Your task to perform on an android device: turn off data saver in the chrome app Image 0: 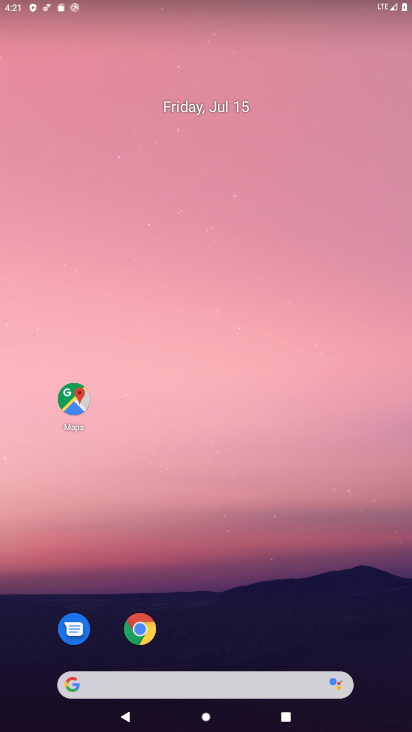
Step 0: click (139, 634)
Your task to perform on an android device: turn off data saver in the chrome app Image 1: 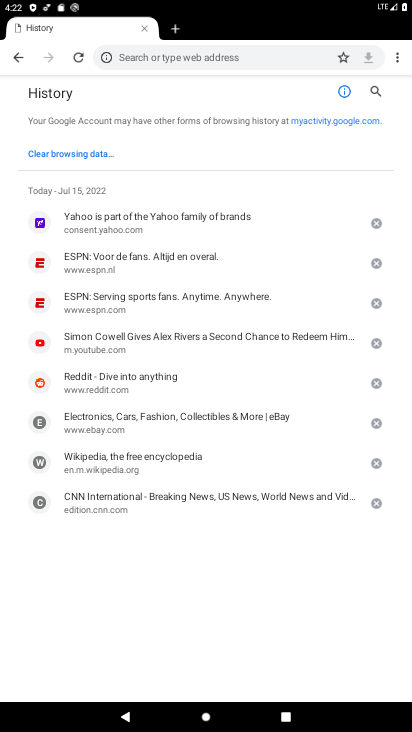
Step 1: click (401, 59)
Your task to perform on an android device: turn off data saver in the chrome app Image 2: 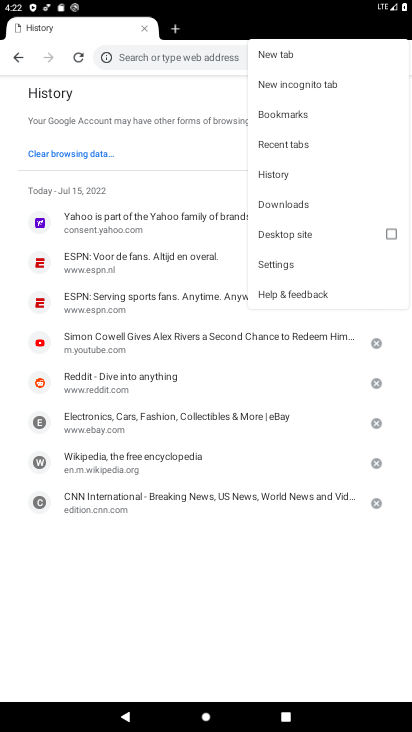
Step 2: click (280, 266)
Your task to perform on an android device: turn off data saver in the chrome app Image 3: 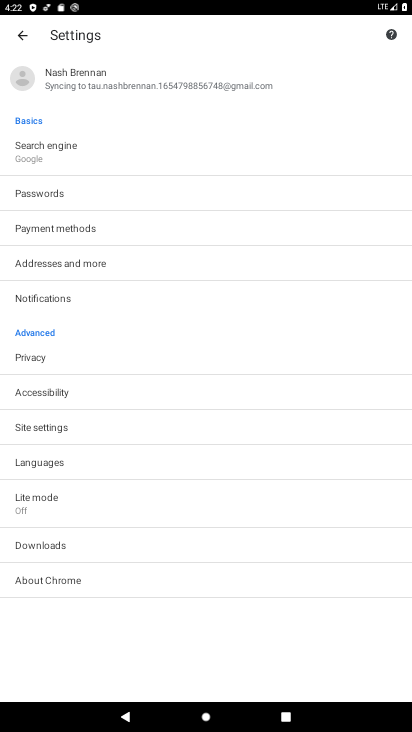
Step 3: click (47, 506)
Your task to perform on an android device: turn off data saver in the chrome app Image 4: 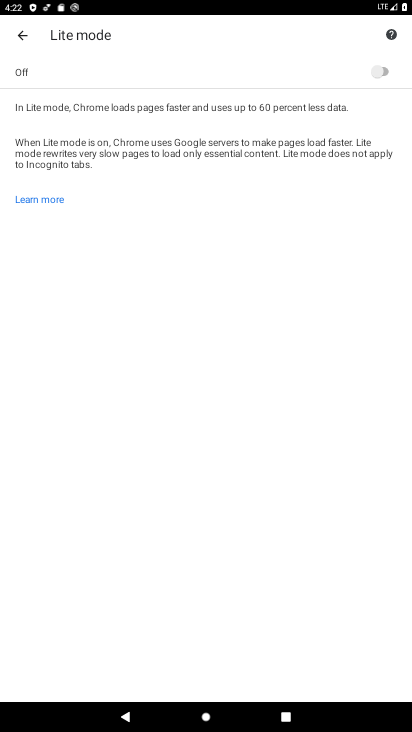
Step 4: task complete